Your task to perform on an android device: Toggle the flashlight Image 0: 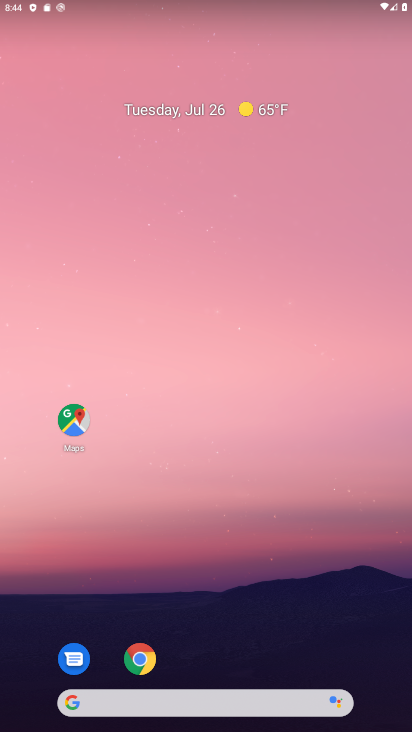
Step 0: drag from (179, 350) to (177, 88)
Your task to perform on an android device: Toggle the flashlight Image 1: 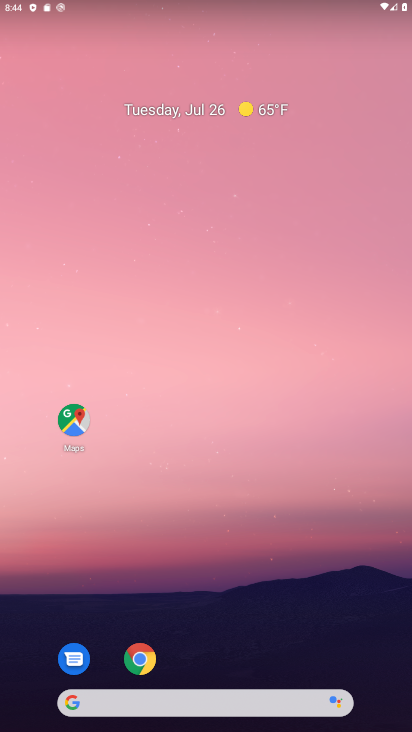
Step 1: task complete